Your task to perform on an android device: Add "rayovac triple a" to the cart on amazon.com Image 0: 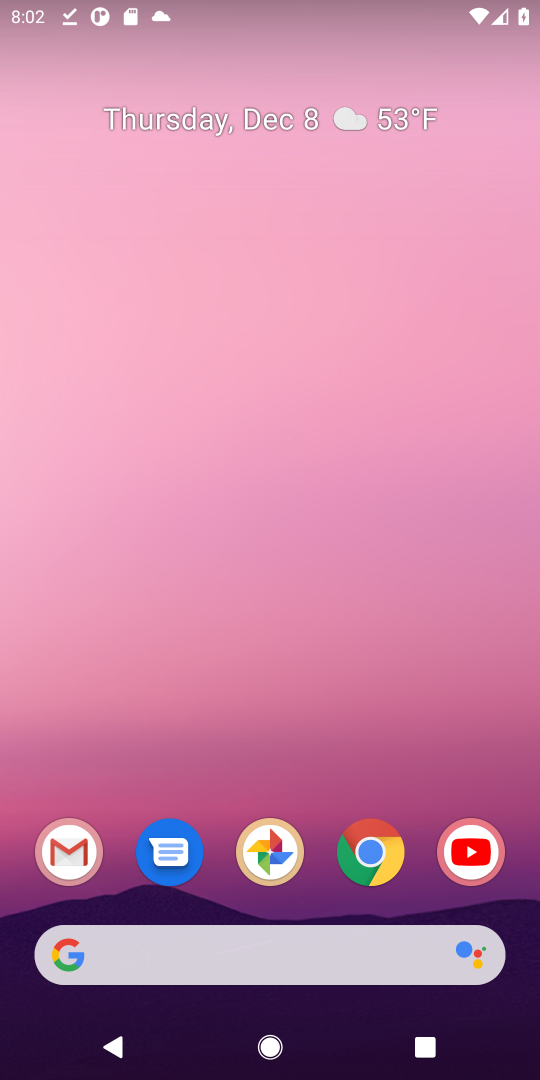
Step 0: click (271, 949)
Your task to perform on an android device: Add "rayovac triple a" to the cart on amazon.com Image 1: 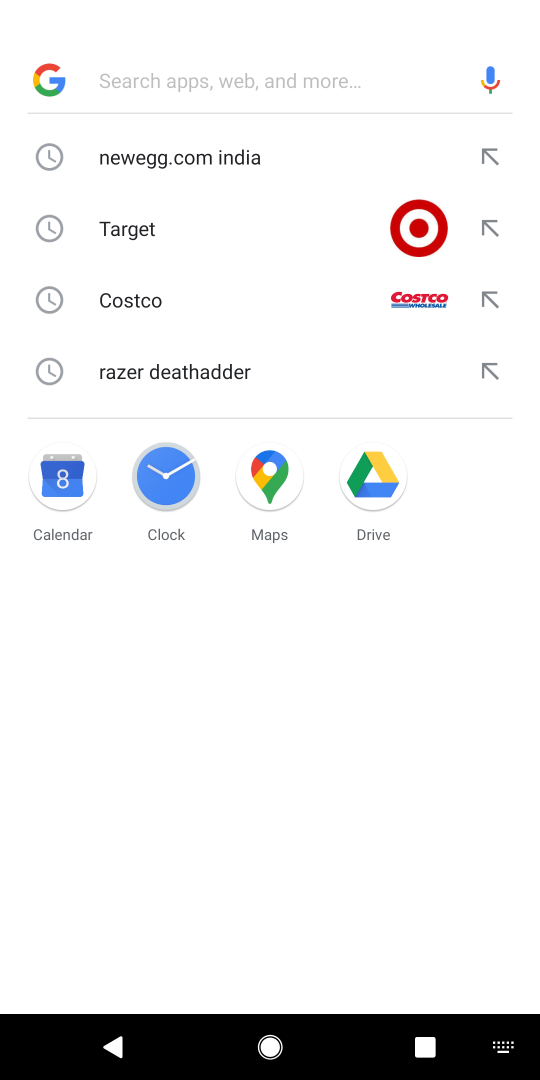
Step 1: type "amazon"
Your task to perform on an android device: Add "rayovac triple a" to the cart on amazon.com Image 2: 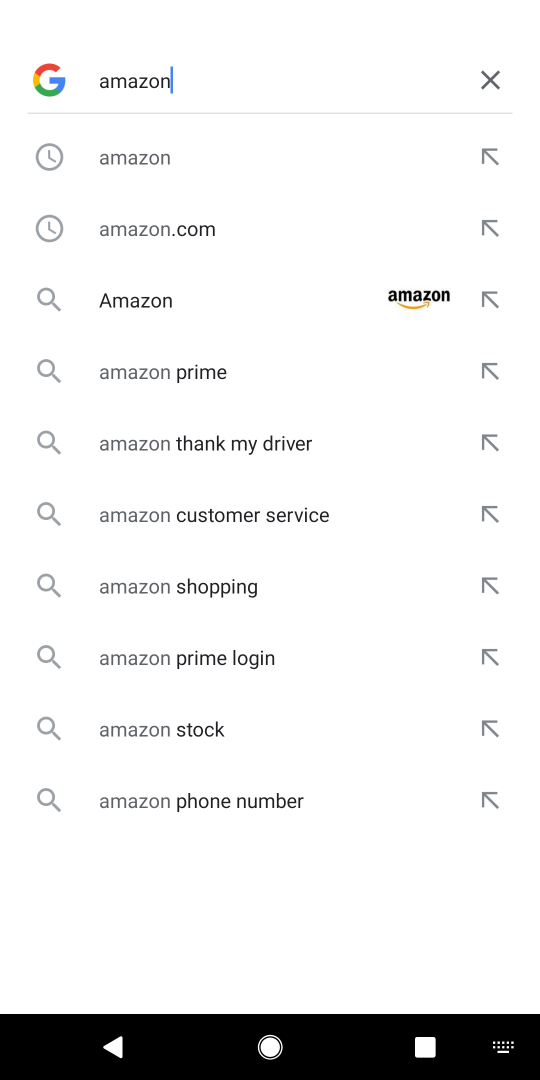
Step 2: click (180, 290)
Your task to perform on an android device: Add "rayovac triple a" to the cart on amazon.com Image 3: 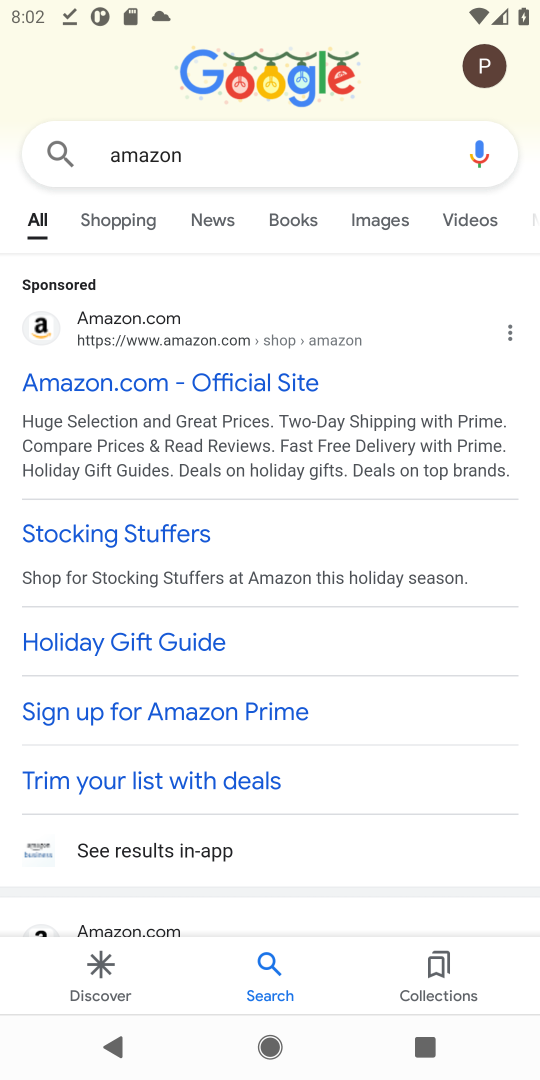
Step 3: click (114, 379)
Your task to perform on an android device: Add "rayovac triple a" to the cart on amazon.com Image 4: 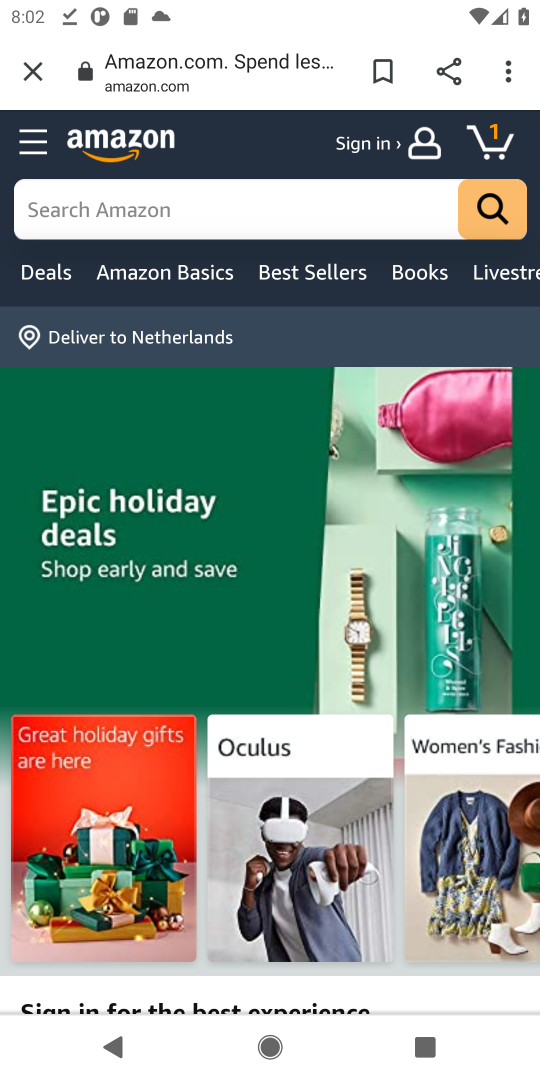
Step 4: click (220, 209)
Your task to perform on an android device: Add "rayovac triple a" to the cart on amazon.com Image 5: 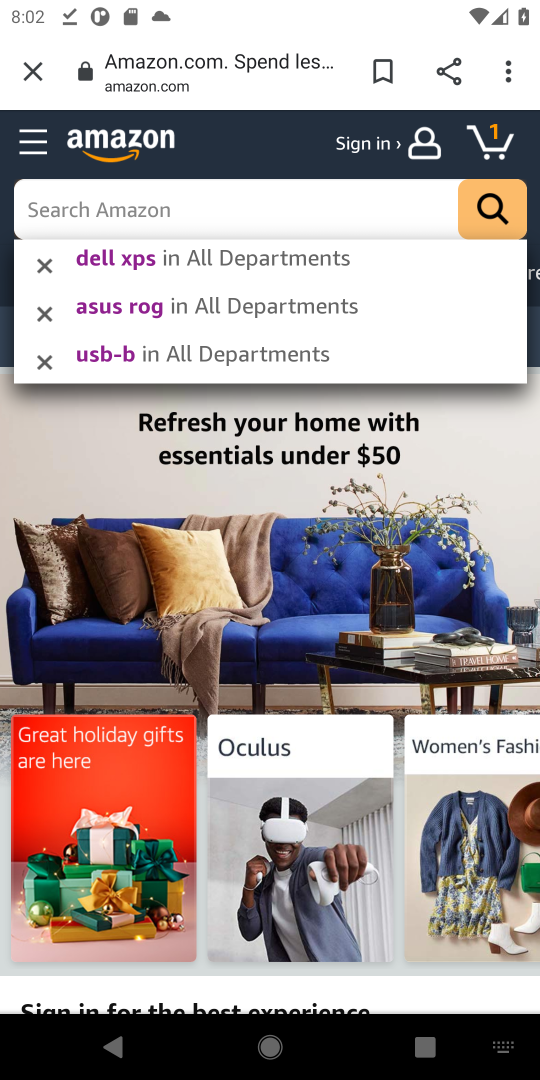
Step 5: type "rayovac"
Your task to perform on an android device: Add "rayovac triple a" to the cart on amazon.com Image 6: 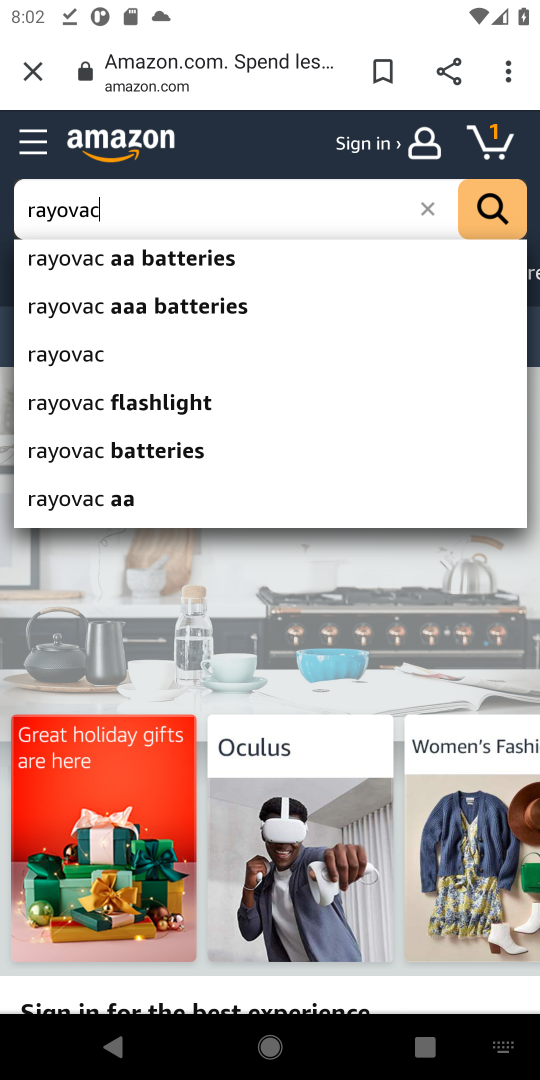
Step 6: click (204, 314)
Your task to perform on an android device: Add "rayovac triple a" to the cart on amazon.com Image 7: 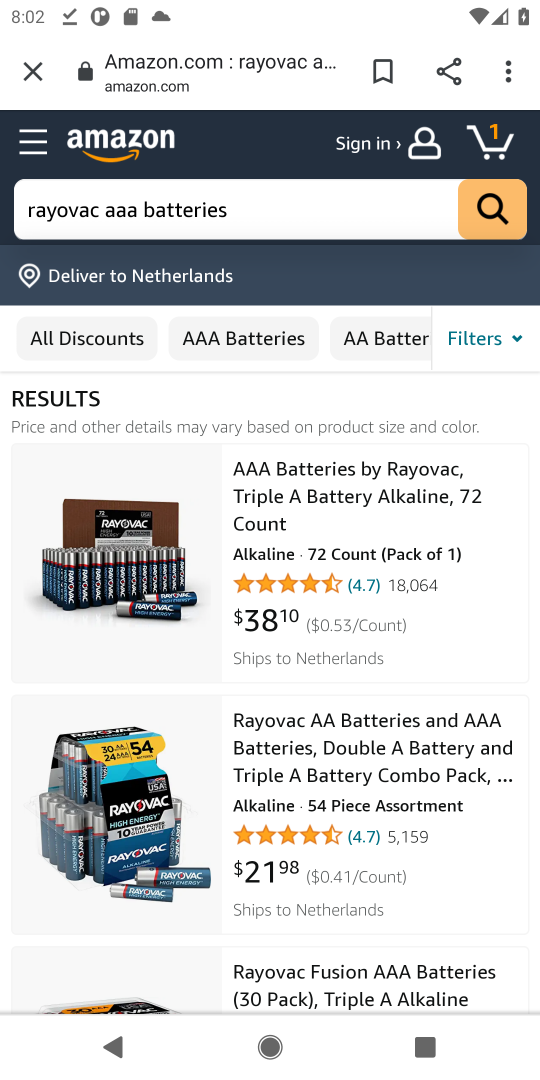
Step 7: click (274, 467)
Your task to perform on an android device: Add "rayovac triple a" to the cart on amazon.com Image 8: 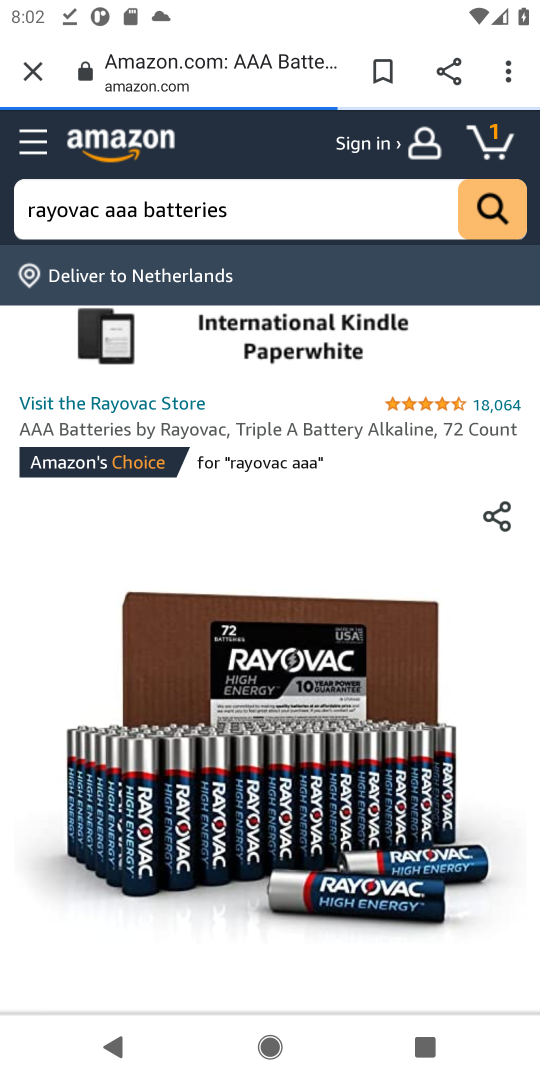
Step 8: drag from (314, 823) to (298, 465)
Your task to perform on an android device: Add "rayovac triple a" to the cart on amazon.com Image 9: 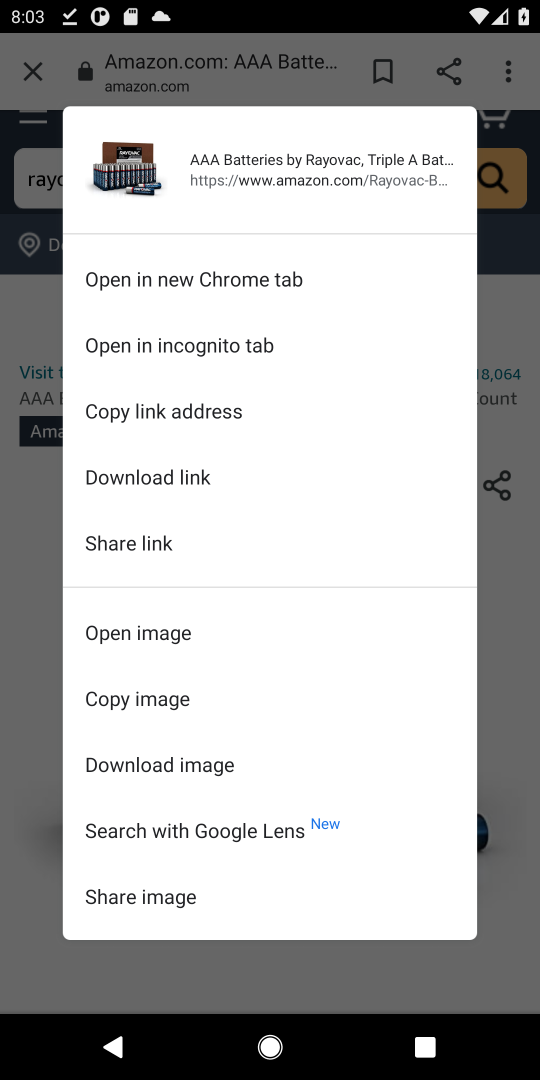
Step 9: click (523, 666)
Your task to perform on an android device: Add "rayovac triple a" to the cart on amazon.com Image 10: 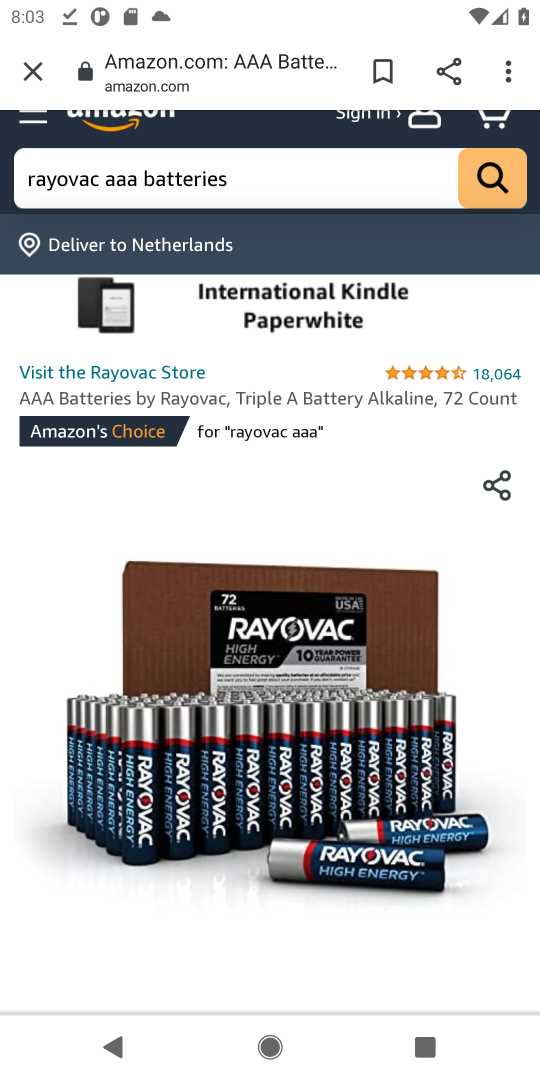
Step 10: drag from (432, 926) to (327, 451)
Your task to perform on an android device: Add "rayovac triple a" to the cart on amazon.com Image 11: 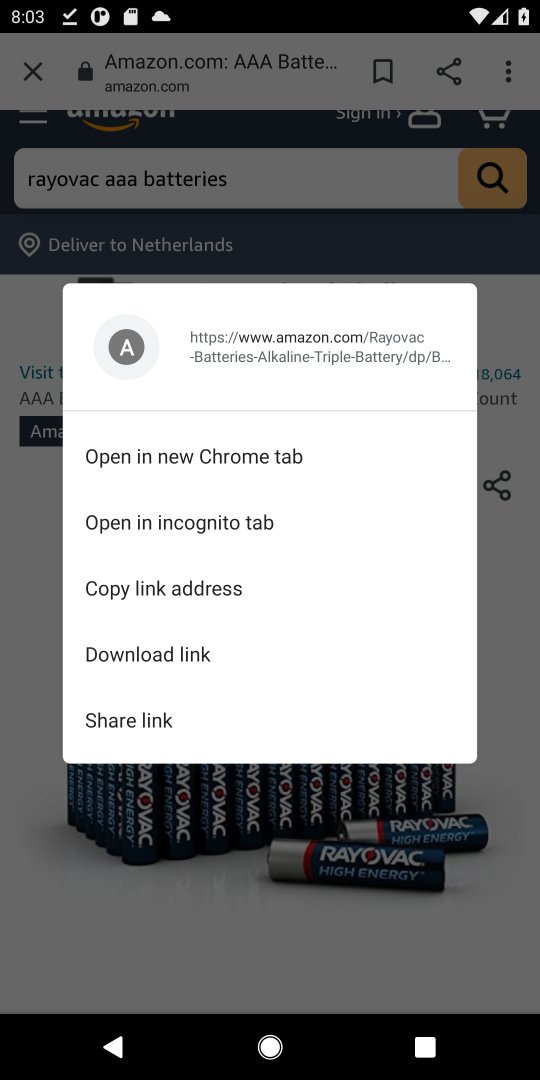
Step 11: click (356, 974)
Your task to perform on an android device: Add "rayovac triple a" to the cart on amazon.com Image 12: 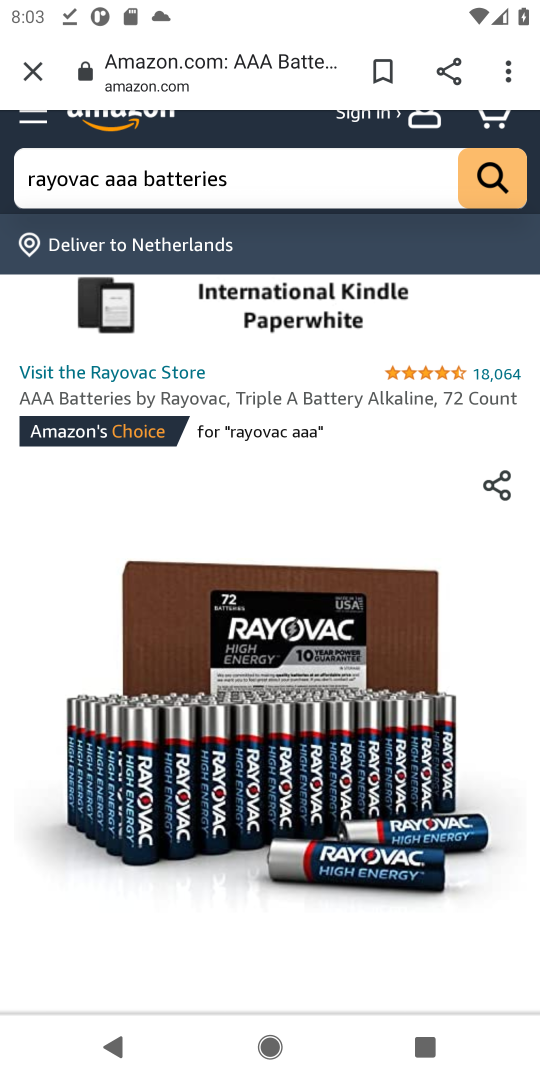
Step 12: drag from (356, 974) to (343, 272)
Your task to perform on an android device: Add "rayovac triple a" to the cart on amazon.com Image 13: 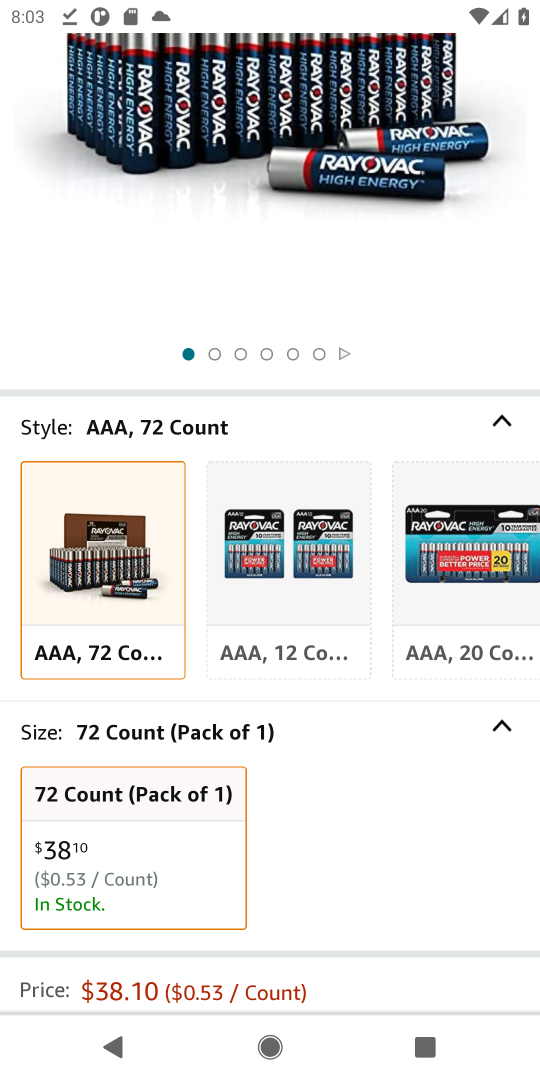
Step 13: drag from (359, 835) to (314, 278)
Your task to perform on an android device: Add "rayovac triple a" to the cart on amazon.com Image 14: 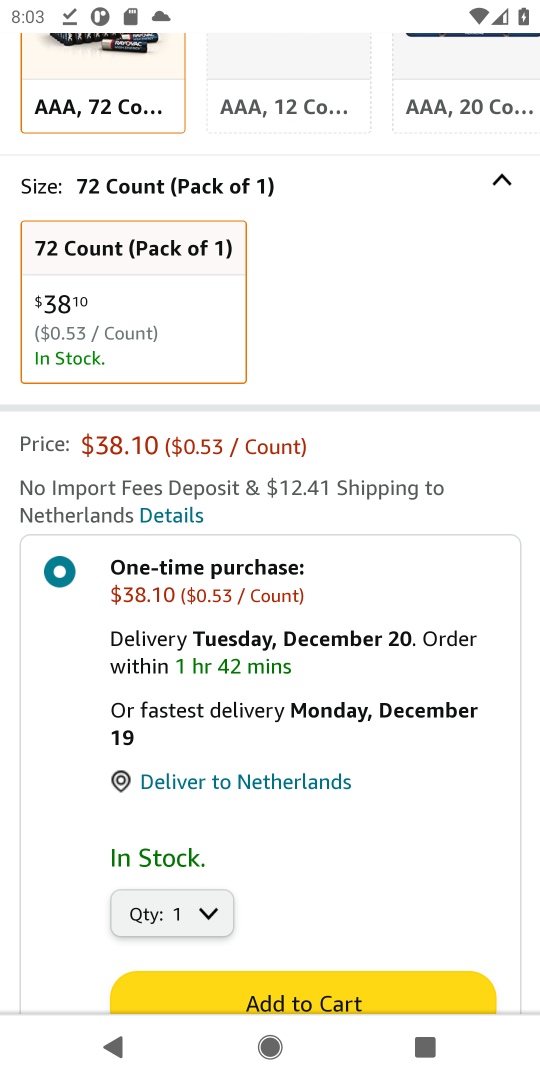
Step 14: click (280, 994)
Your task to perform on an android device: Add "rayovac triple a" to the cart on amazon.com Image 15: 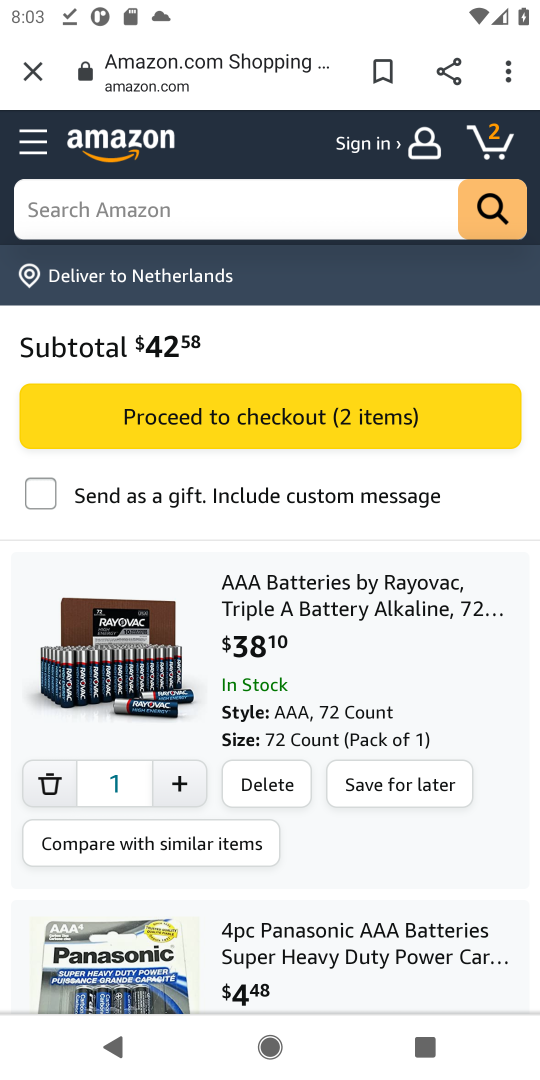
Step 15: task complete